Your task to perform on an android device: turn on priority inbox in the gmail app Image 0: 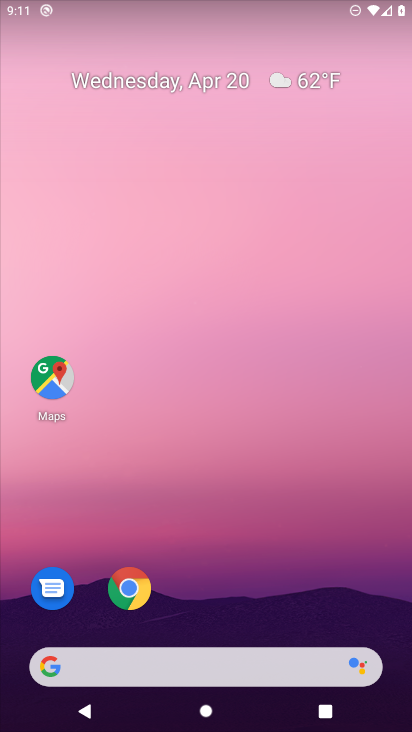
Step 0: drag from (4, 453) to (399, 455)
Your task to perform on an android device: turn on priority inbox in the gmail app Image 1: 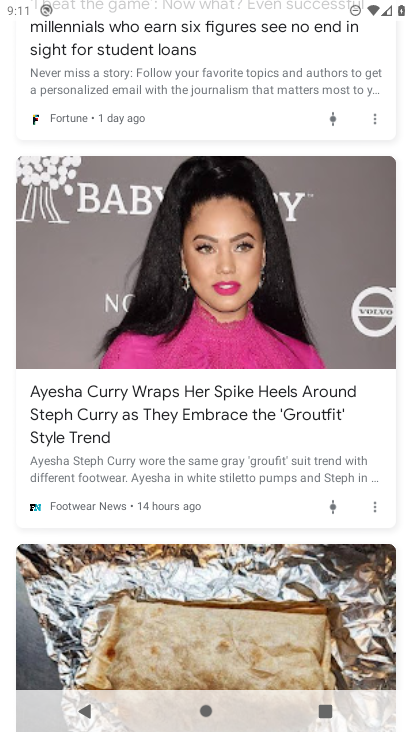
Step 1: task complete